Your task to perform on an android device: clear history in the chrome app Image 0: 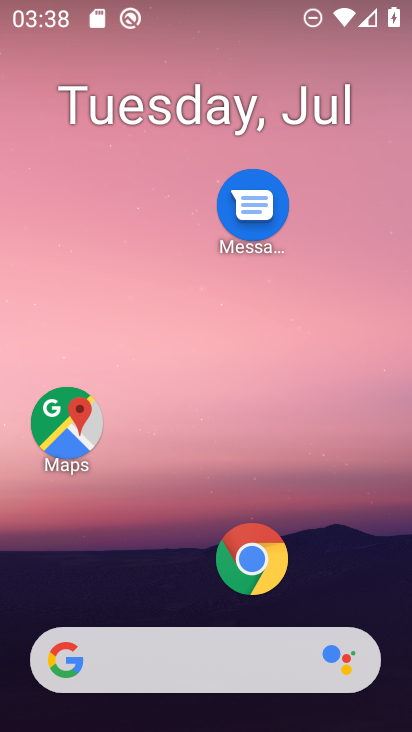
Step 0: click (260, 565)
Your task to perform on an android device: clear history in the chrome app Image 1: 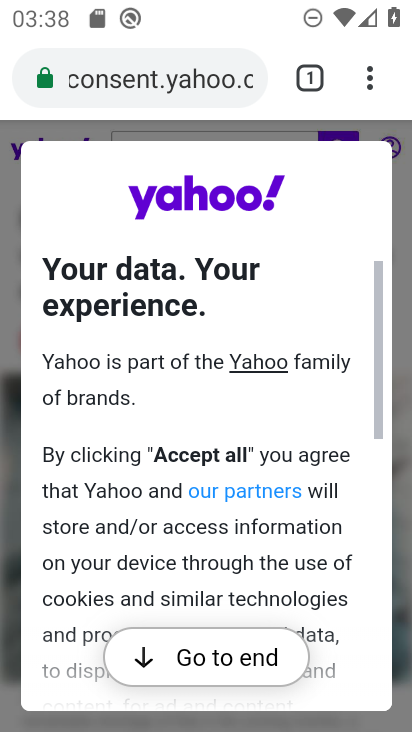
Step 1: drag from (362, 59) to (115, 435)
Your task to perform on an android device: clear history in the chrome app Image 2: 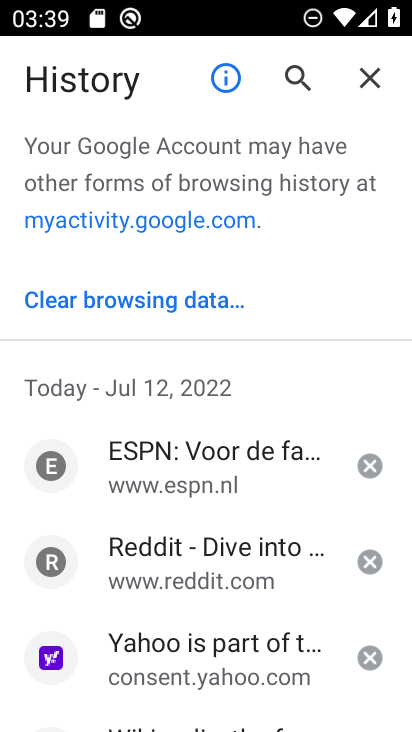
Step 2: click (155, 294)
Your task to perform on an android device: clear history in the chrome app Image 3: 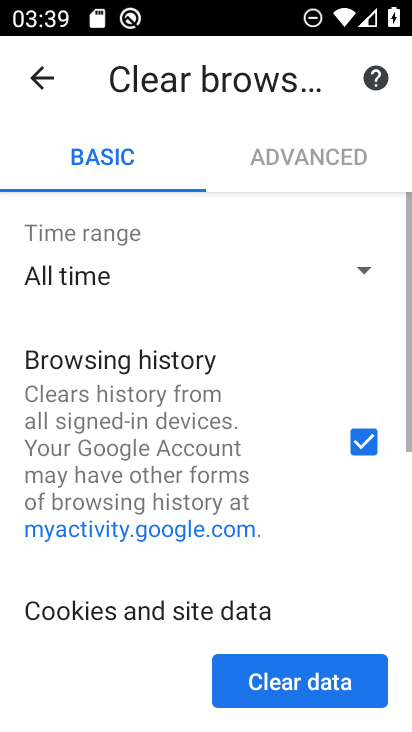
Step 3: drag from (185, 567) to (323, 109)
Your task to perform on an android device: clear history in the chrome app Image 4: 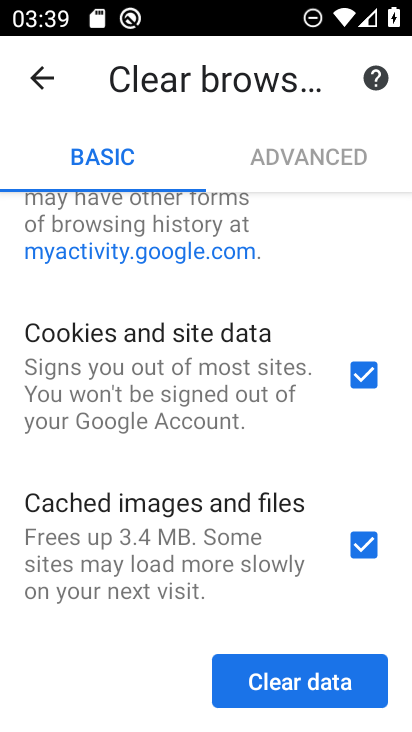
Step 4: click (256, 694)
Your task to perform on an android device: clear history in the chrome app Image 5: 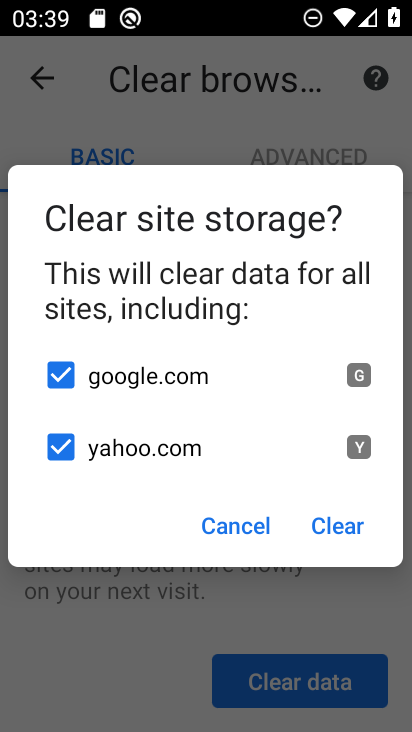
Step 5: click (334, 532)
Your task to perform on an android device: clear history in the chrome app Image 6: 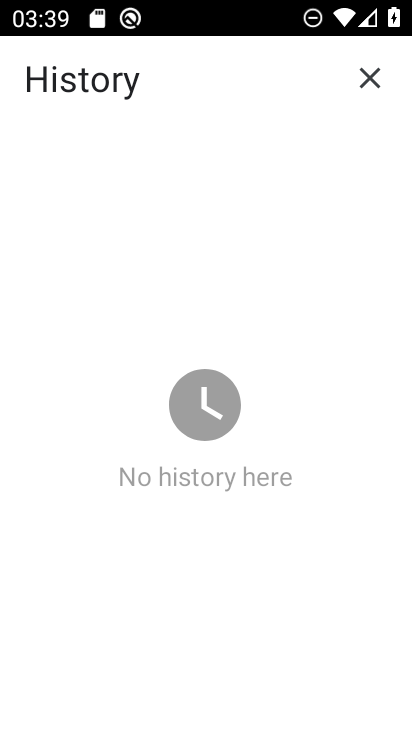
Step 6: task complete